Your task to perform on an android device: search for starred emails in the gmail app Image 0: 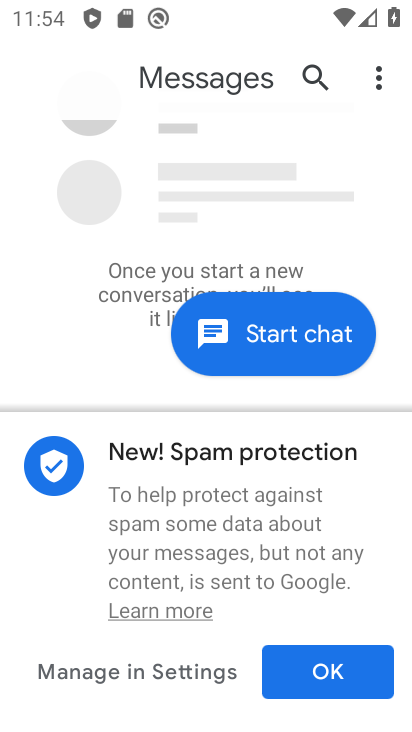
Step 0: press back button
Your task to perform on an android device: search for starred emails in the gmail app Image 1: 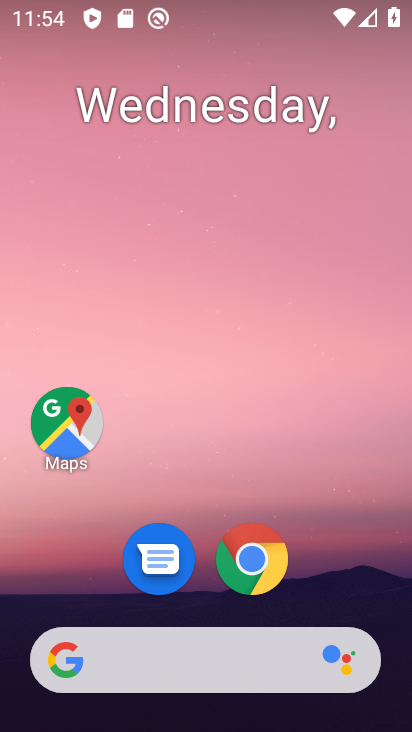
Step 1: drag from (88, 570) to (216, 59)
Your task to perform on an android device: search for starred emails in the gmail app Image 2: 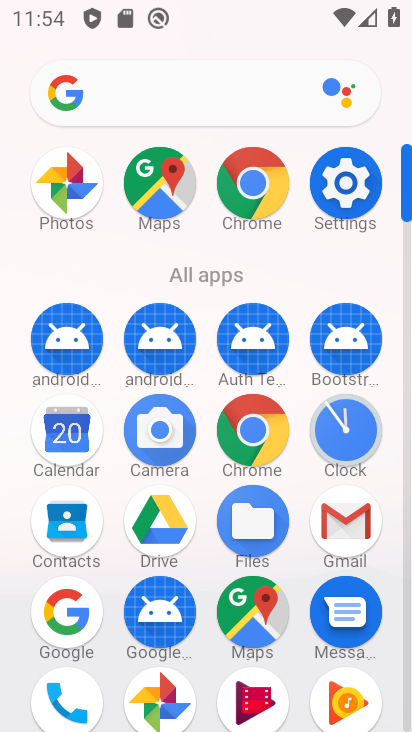
Step 2: click (344, 520)
Your task to perform on an android device: search for starred emails in the gmail app Image 3: 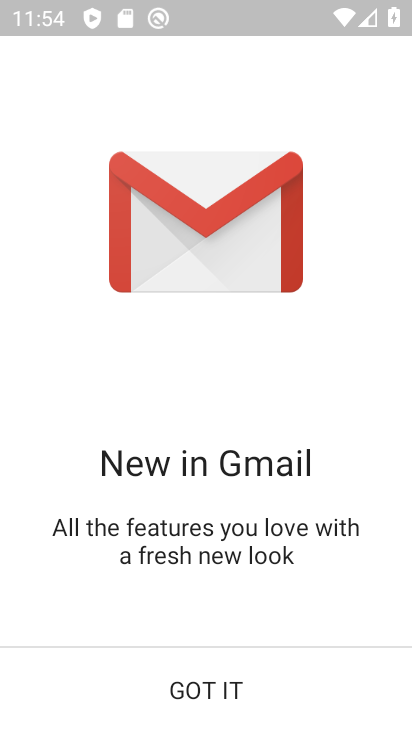
Step 3: click (213, 675)
Your task to perform on an android device: search for starred emails in the gmail app Image 4: 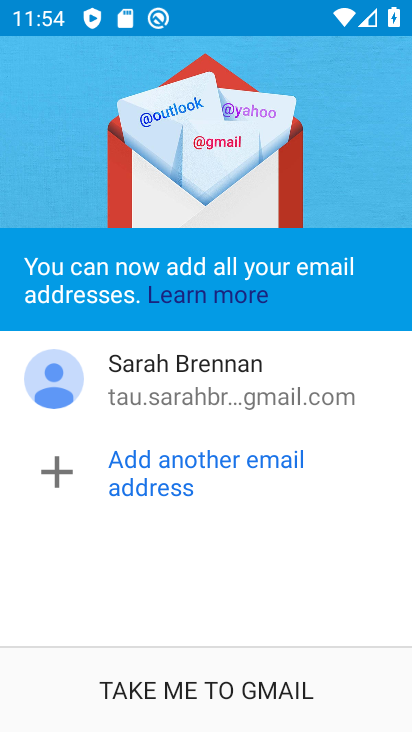
Step 4: click (168, 690)
Your task to perform on an android device: search for starred emails in the gmail app Image 5: 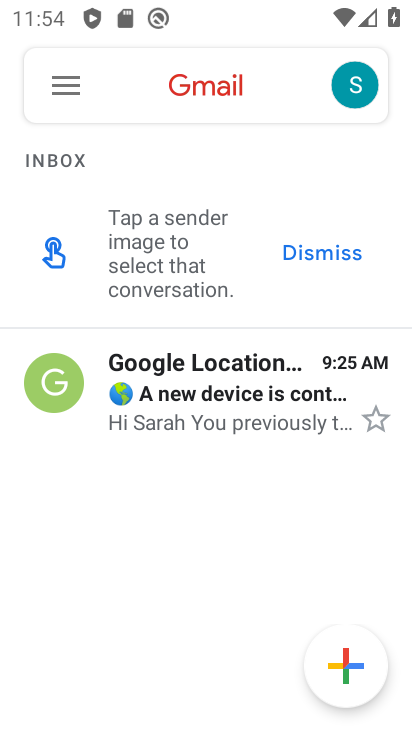
Step 5: click (61, 89)
Your task to perform on an android device: search for starred emails in the gmail app Image 6: 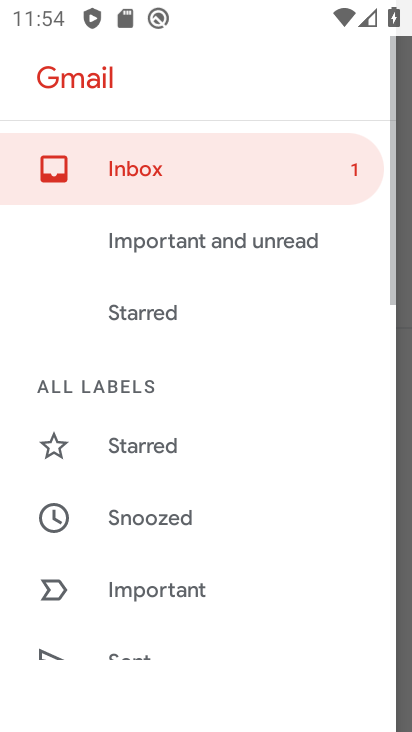
Step 6: click (186, 309)
Your task to perform on an android device: search for starred emails in the gmail app Image 7: 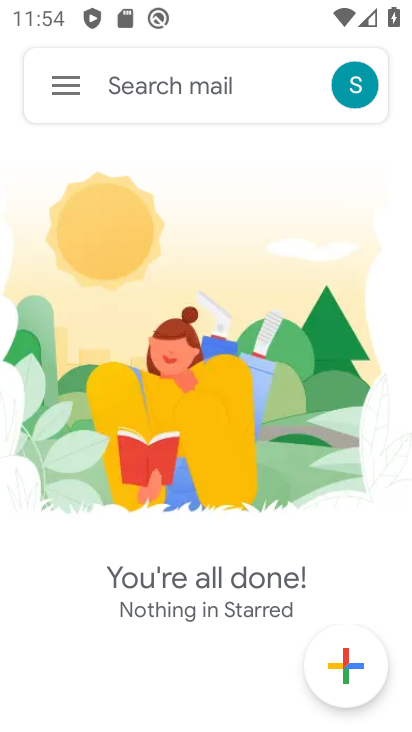
Step 7: task complete